Your task to perform on an android device: visit the assistant section in the google photos Image 0: 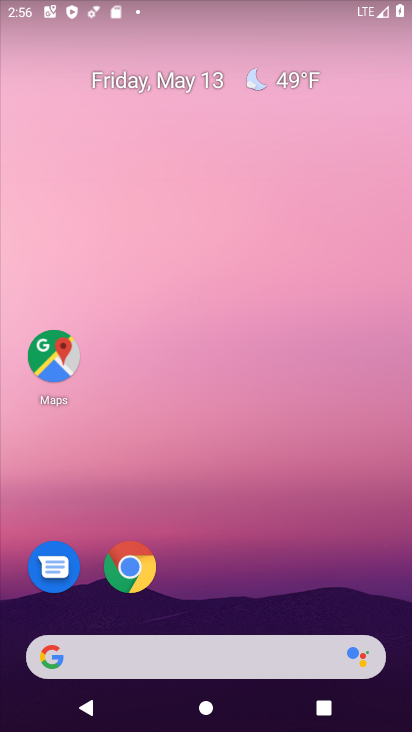
Step 0: drag from (235, 627) to (167, 23)
Your task to perform on an android device: visit the assistant section in the google photos Image 1: 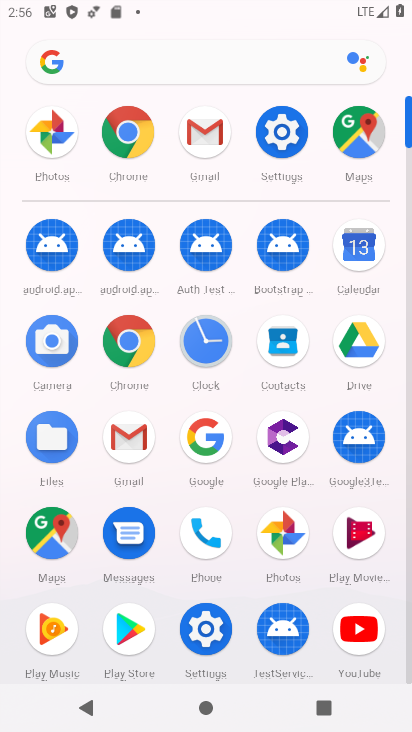
Step 1: click (282, 525)
Your task to perform on an android device: visit the assistant section in the google photos Image 2: 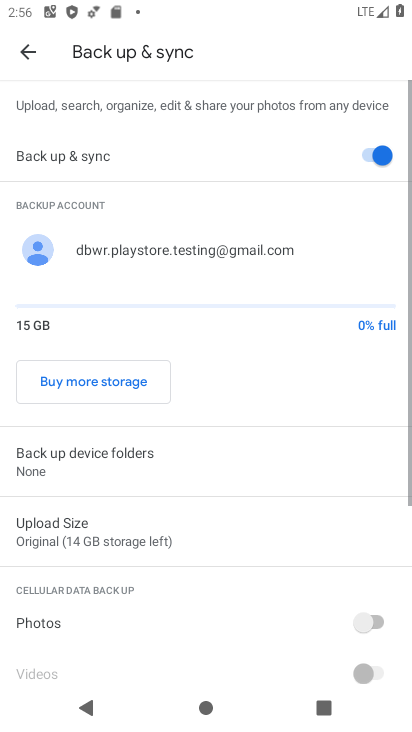
Step 2: click (26, 49)
Your task to perform on an android device: visit the assistant section in the google photos Image 3: 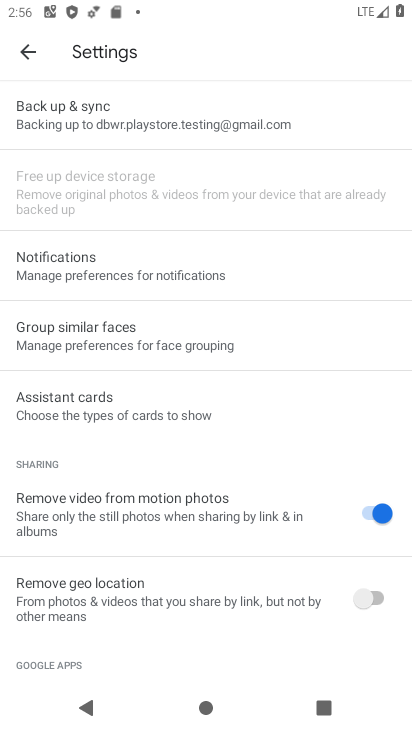
Step 3: click (22, 62)
Your task to perform on an android device: visit the assistant section in the google photos Image 4: 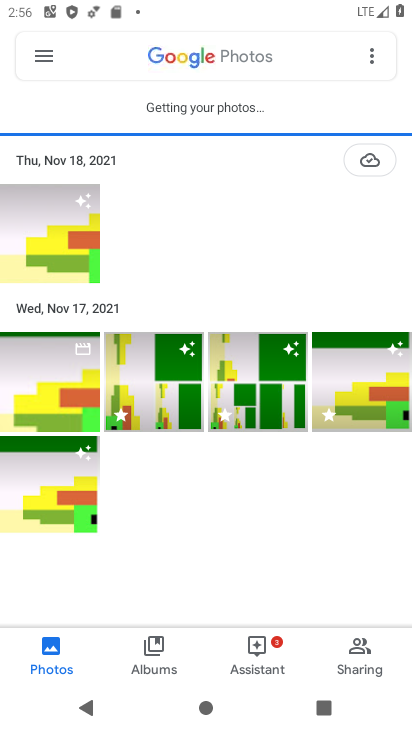
Step 4: click (258, 661)
Your task to perform on an android device: visit the assistant section in the google photos Image 5: 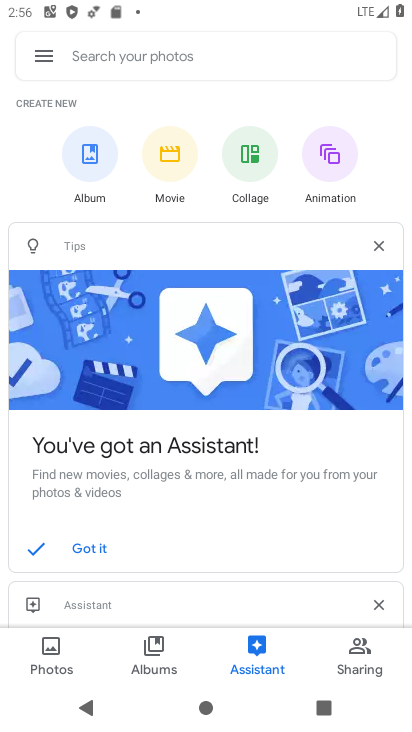
Step 5: task complete